Your task to perform on an android device: find photos in the google photos app Image 0: 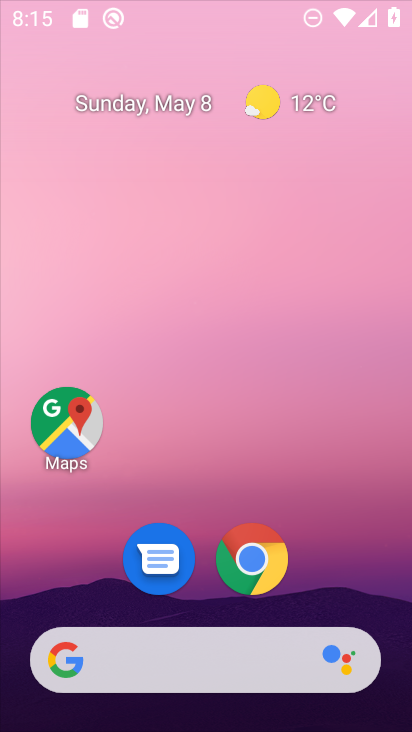
Step 0: click (259, 564)
Your task to perform on an android device: find photos in the google photos app Image 1: 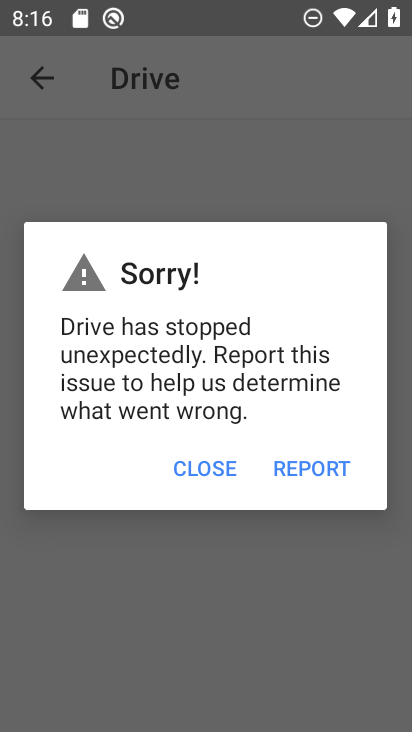
Step 1: press home button
Your task to perform on an android device: find photos in the google photos app Image 2: 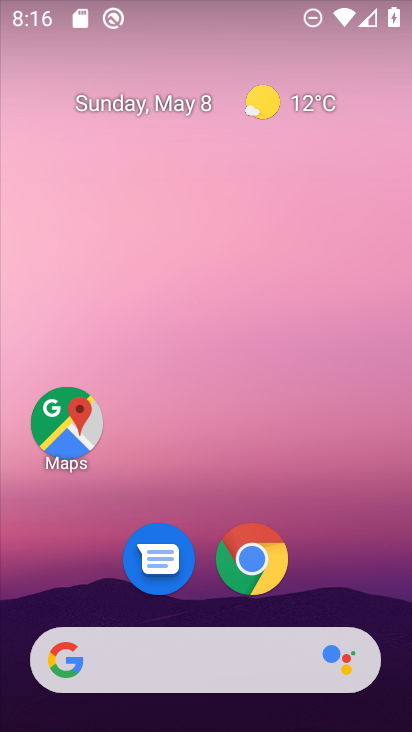
Step 2: drag from (318, 602) to (281, 32)
Your task to perform on an android device: find photos in the google photos app Image 3: 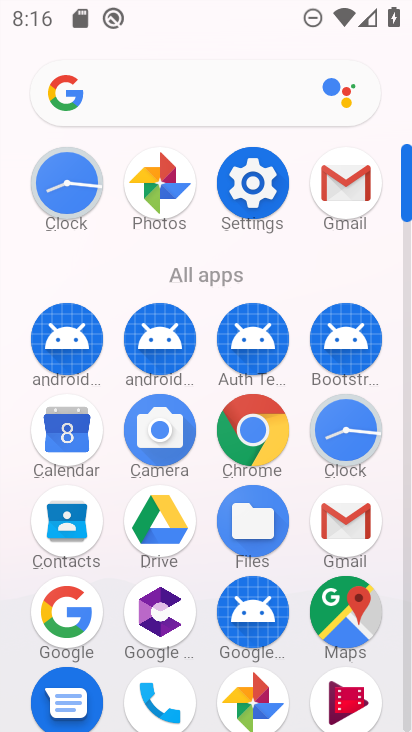
Step 3: click (155, 191)
Your task to perform on an android device: find photos in the google photos app Image 4: 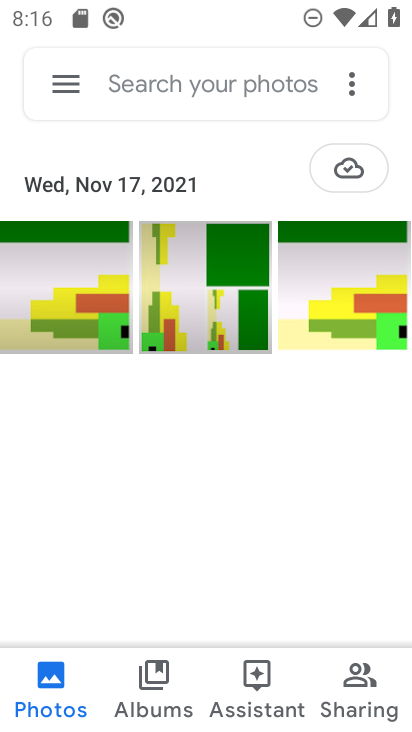
Step 4: click (51, 687)
Your task to perform on an android device: find photos in the google photos app Image 5: 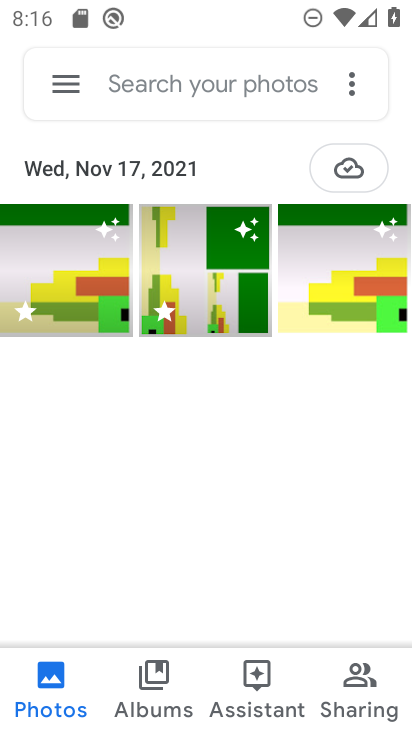
Step 5: task complete